Your task to perform on an android device: toggle improve location accuracy Image 0: 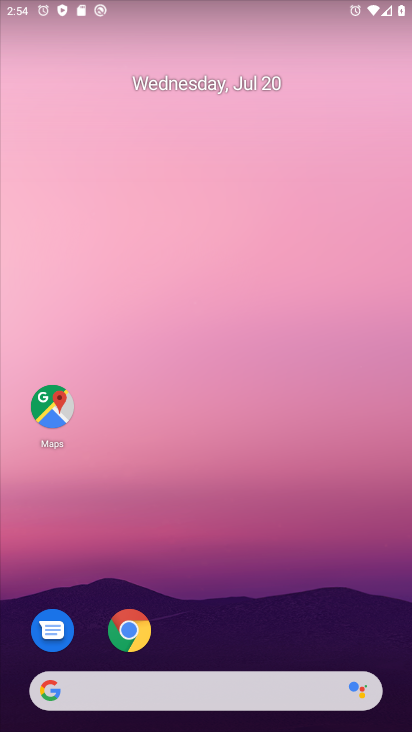
Step 0: drag from (36, 650) to (382, 84)
Your task to perform on an android device: toggle improve location accuracy Image 1: 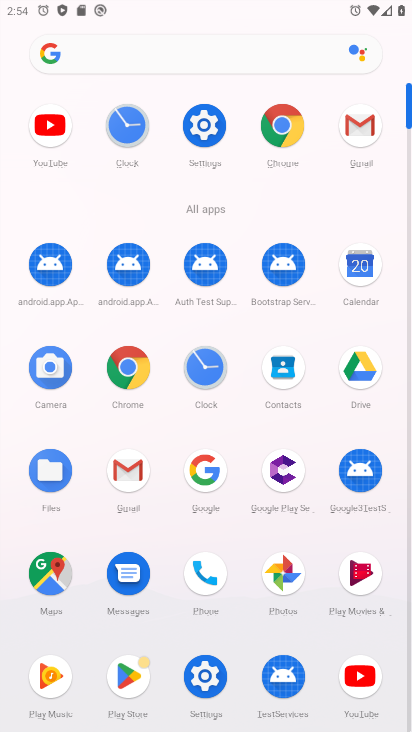
Step 1: click (196, 120)
Your task to perform on an android device: toggle improve location accuracy Image 2: 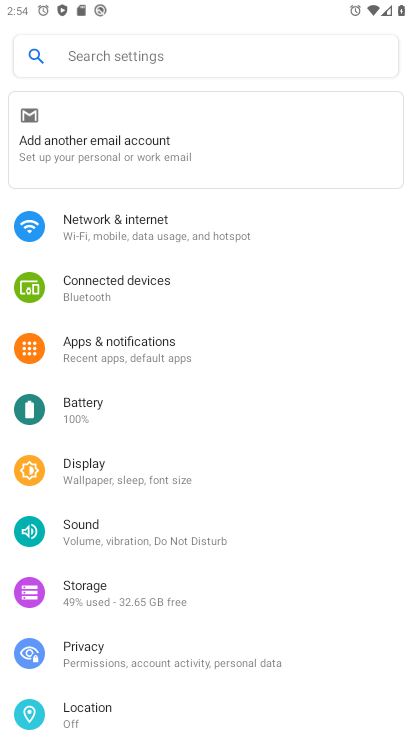
Step 2: click (79, 697)
Your task to perform on an android device: toggle improve location accuracy Image 3: 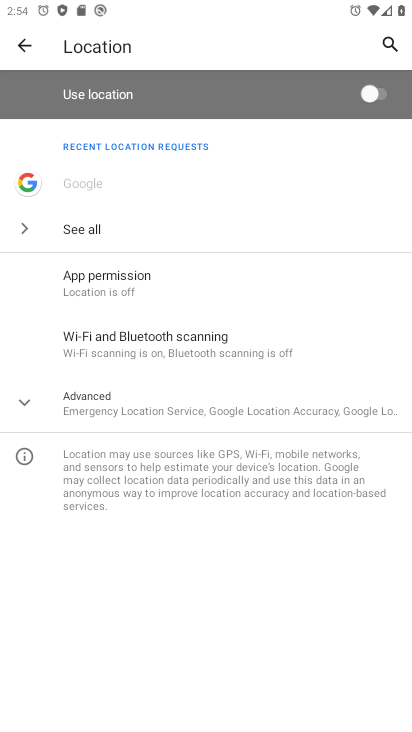
Step 3: click (166, 405)
Your task to perform on an android device: toggle improve location accuracy Image 4: 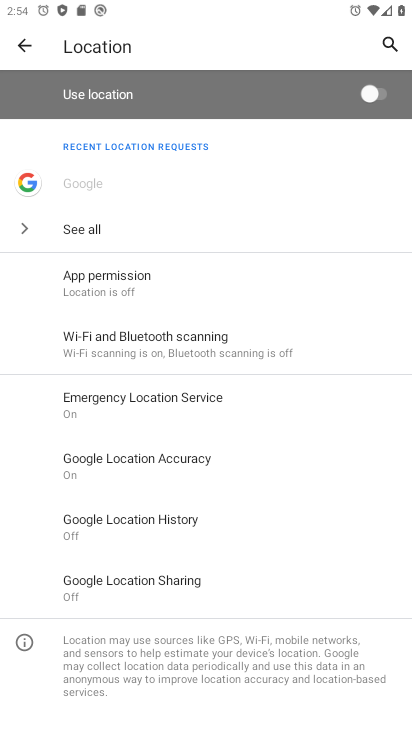
Step 4: click (184, 466)
Your task to perform on an android device: toggle improve location accuracy Image 5: 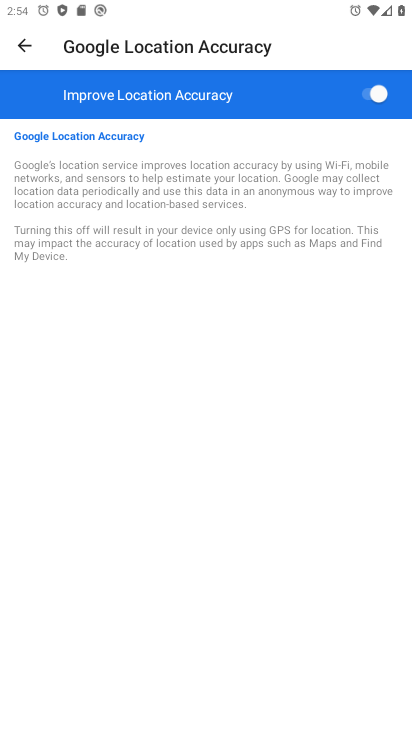
Step 5: click (378, 96)
Your task to perform on an android device: toggle improve location accuracy Image 6: 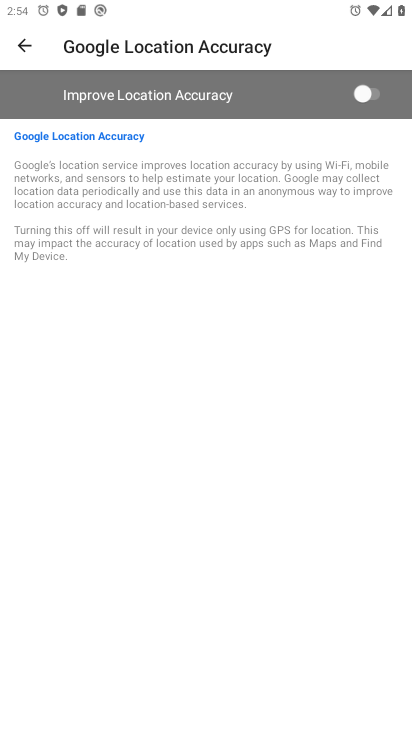
Step 6: task complete